Your task to perform on an android device: turn off javascript in the chrome app Image 0: 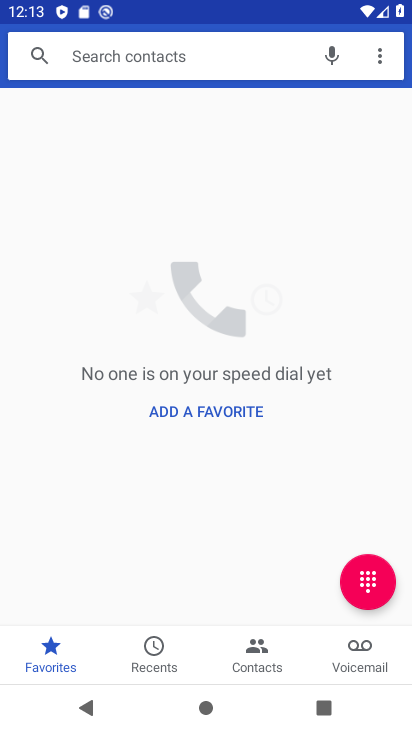
Step 0: press home button
Your task to perform on an android device: turn off javascript in the chrome app Image 1: 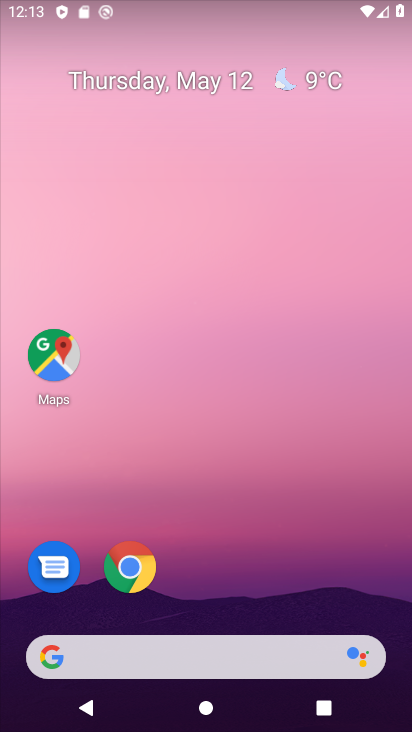
Step 1: click (134, 575)
Your task to perform on an android device: turn off javascript in the chrome app Image 2: 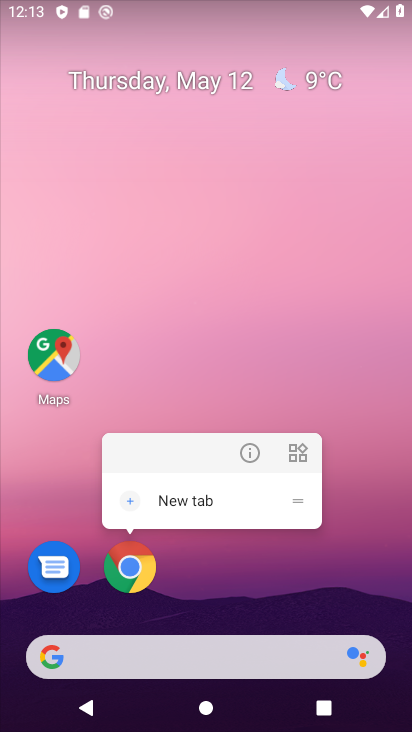
Step 2: click (147, 592)
Your task to perform on an android device: turn off javascript in the chrome app Image 3: 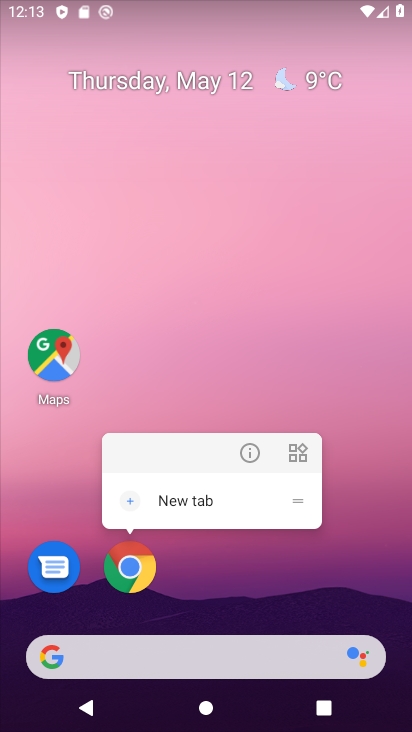
Step 3: click (126, 564)
Your task to perform on an android device: turn off javascript in the chrome app Image 4: 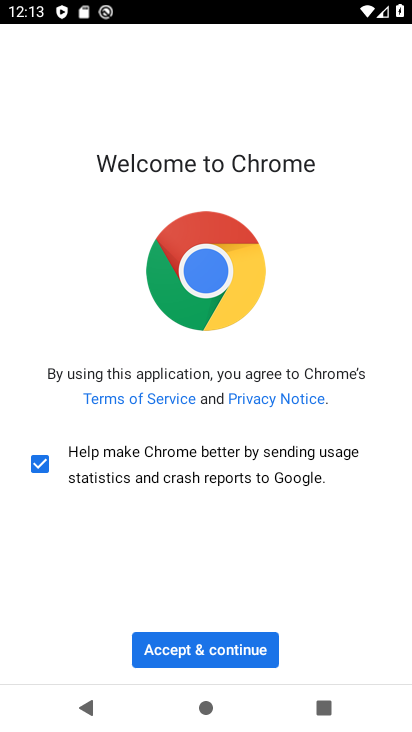
Step 4: click (210, 662)
Your task to perform on an android device: turn off javascript in the chrome app Image 5: 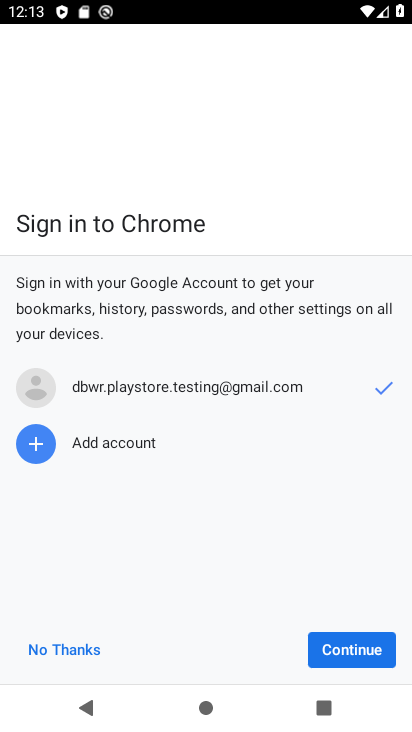
Step 5: click (341, 652)
Your task to perform on an android device: turn off javascript in the chrome app Image 6: 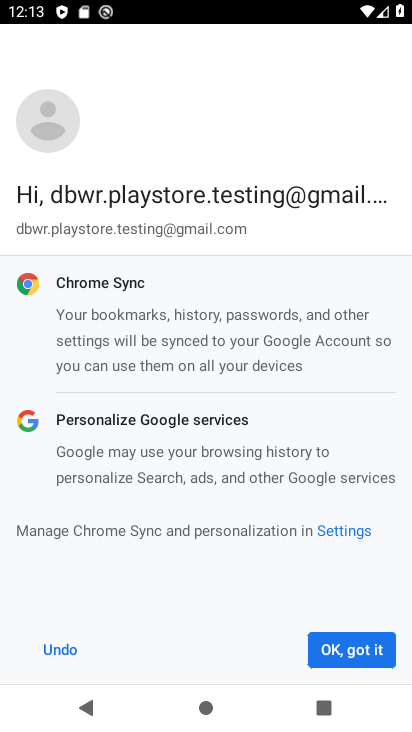
Step 6: click (336, 655)
Your task to perform on an android device: turn off javascript in the chrome app Image 7: 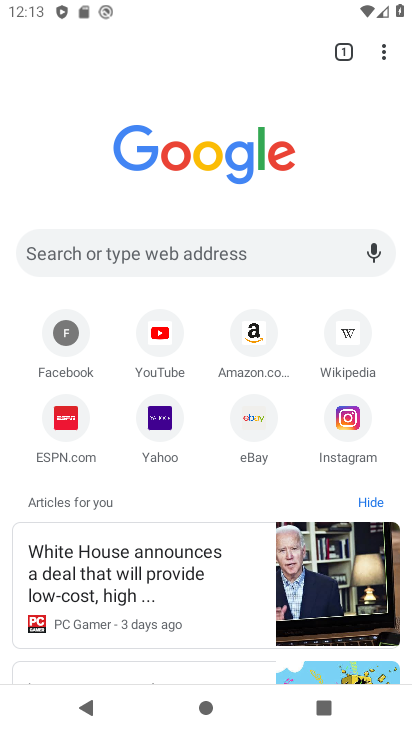
Step 7: drag from (389, 55) to (317, 432)
Your task to perform on an android device: turn off javascript in the chrome app Image 8: 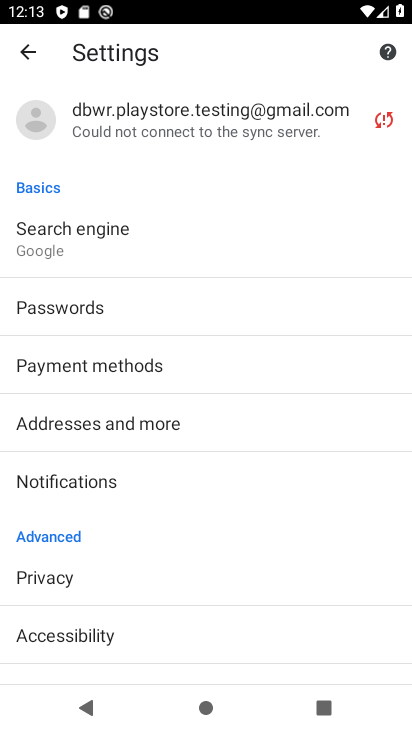
Step 8: drag from (250, 581) to (274, 188)
Your task to perform on an android device: turn off javascript in the chrome app Image 9: 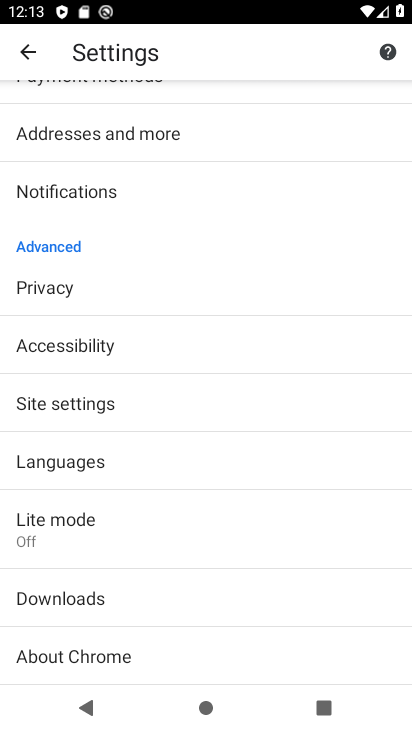
Step 9: click (107, 421)
Your task to perform on an android device: turn off javascript in the chrome app Image 10: 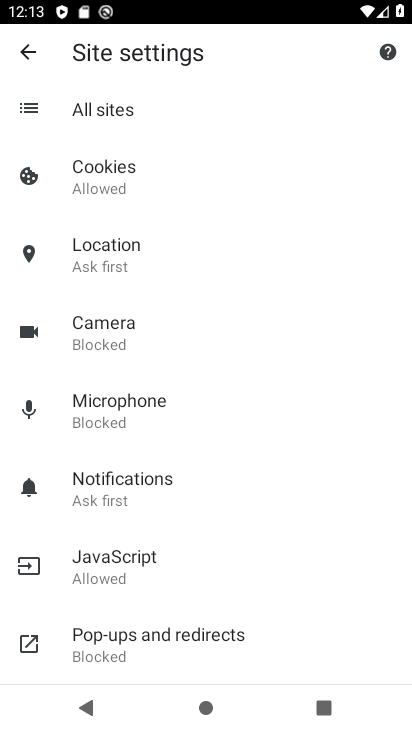
Step 10: click (179, 560)
Your task to perform on an android device: turn off javascript in the chrome app Image 11: 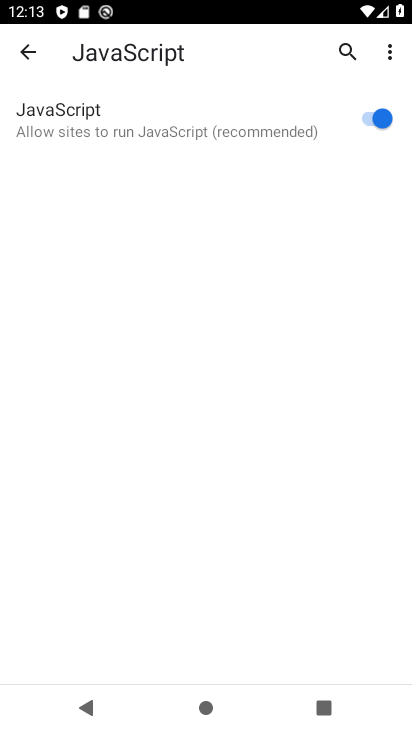
Step 11: click (373, 122)
Your task to perform on an android device: turn off javascript in the chrome app Image 12: 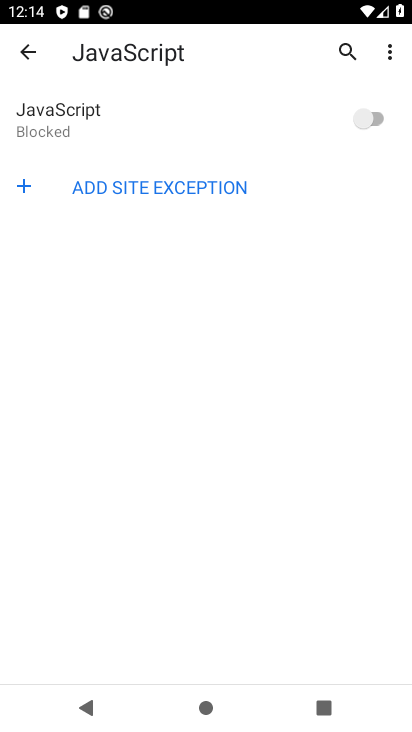
Step 12: task complete